Your task to perform on an android device: Open accessibility settings Image 0: 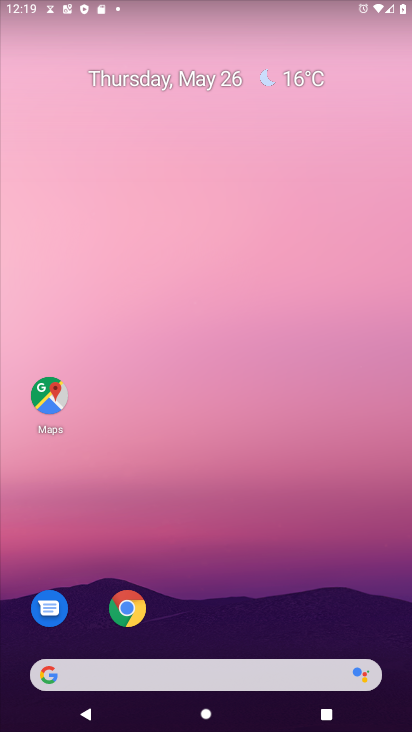
Step 0: drag from (242, 699) to (242, 87)
Your task to perform on an android device: Open accessibility settings Image 1: 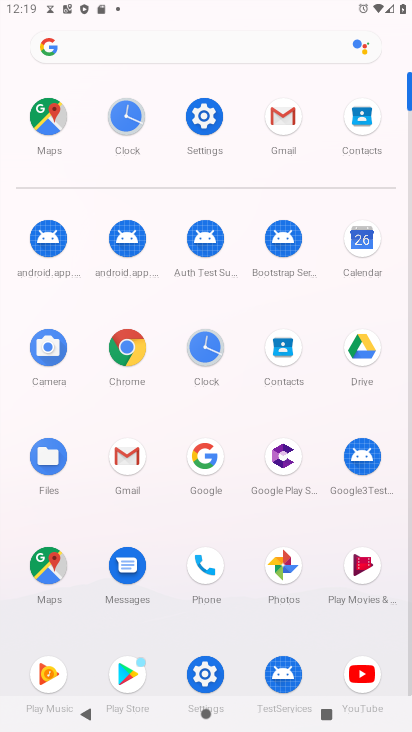
Step 1: click (196, 114)
Your task to perform on an android device: Open accessibility settings Image 2: 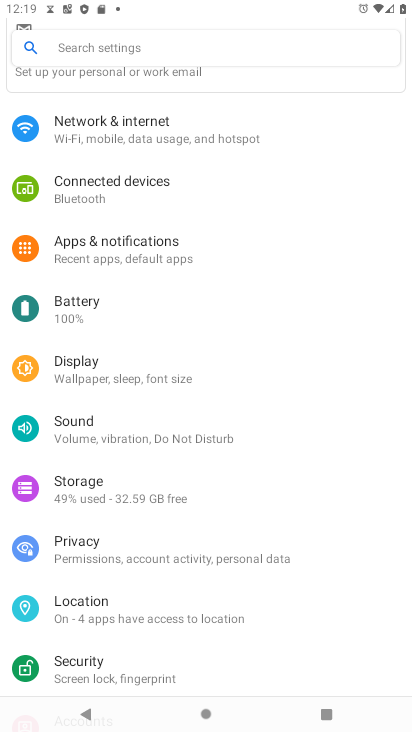
Step 2: drag from (114, 603) to (116, 224)
Your task to perform on an android device: Open accessibility settings Image 3: 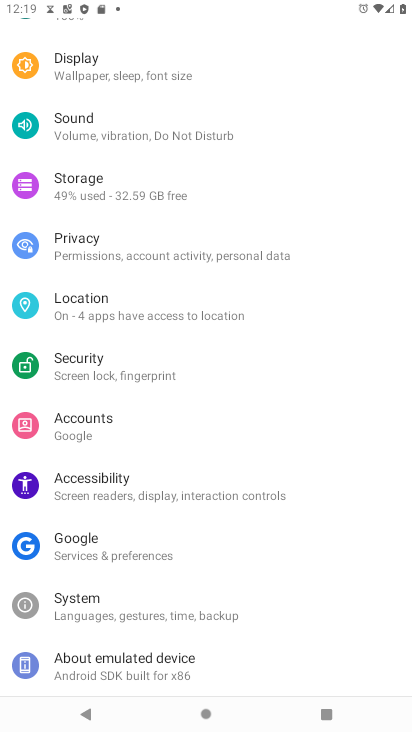
Step 3: click (89, 491)
Your task to perform on an android device: Open accessibility settings Image 4: 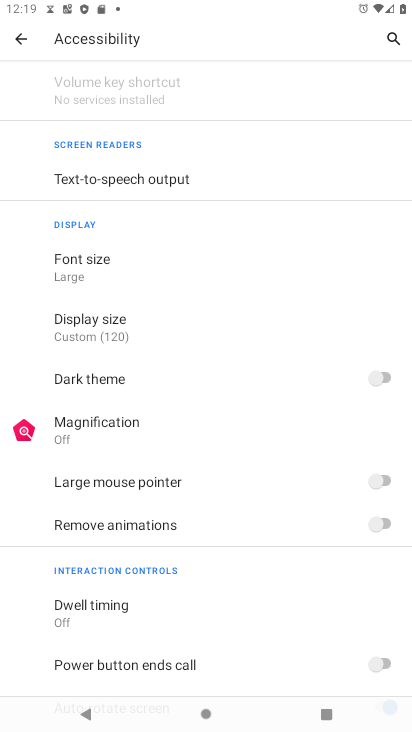
Step 4: task complete